Your task to perform on an android device: turn on the 24-hour format for clock Image 0: 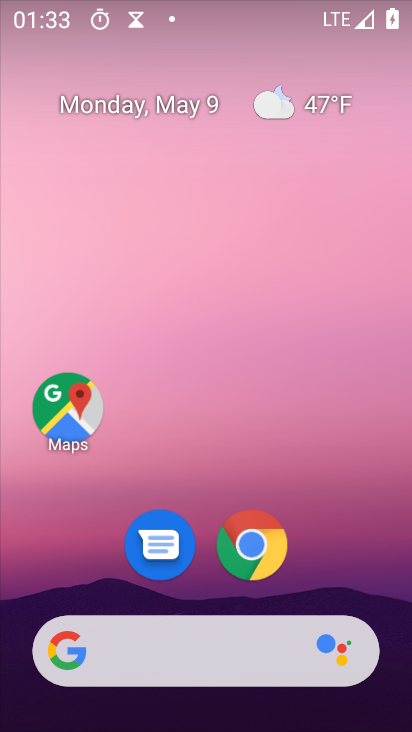
Step 0: drag from (334, 622) to (341, 23)
Your task to perform on an android device: turn on the 24-hour format for clock Image 1: 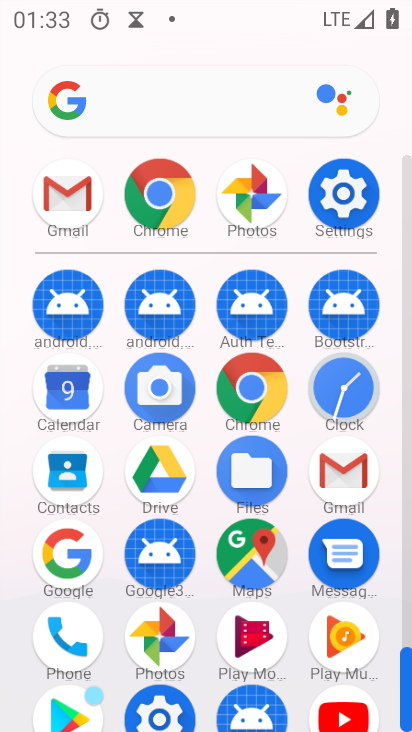
Step 1: click (348, 384)
Your task to perform on an android device: turn on the 24-hour format for clock Image 2: 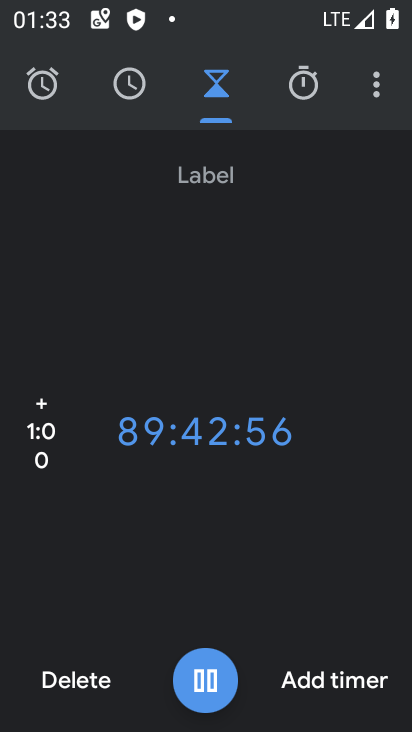
Step 2: drag from (378, 80) to (211, 170)
Your task to perform on an android device: turn on the 24-hour format for clock Image 3: 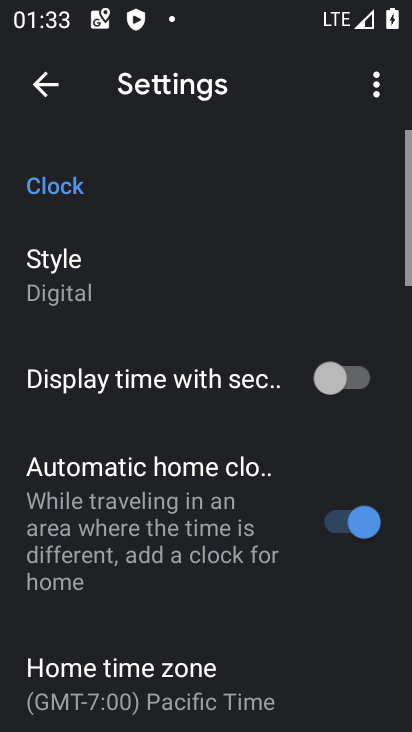
Step 3: drag from (244, 657) to (231, 269)
Your task to perform on an android device: turn on the 24-hour format for clock Image 4: 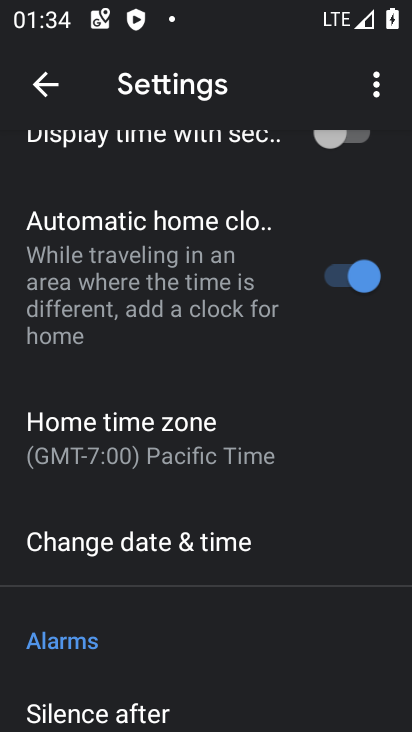
Step 4: click (187, 566)
Your task to perform on an android device: turn on the 24-hour format for clock Image 5: 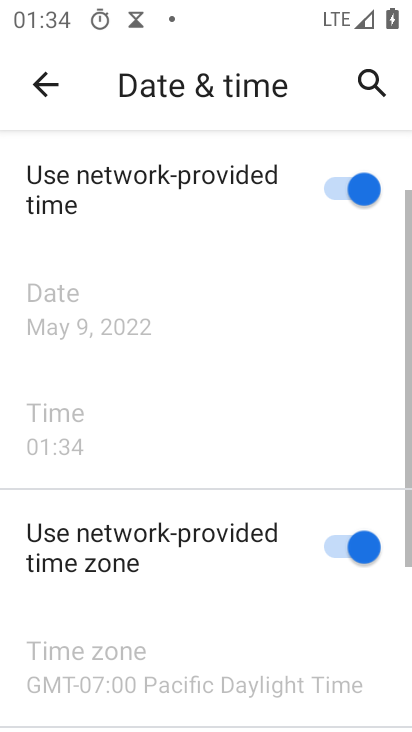
Step 5: task complete